Your task to perform on an android device: turn on translation in the chrome app Image 0: 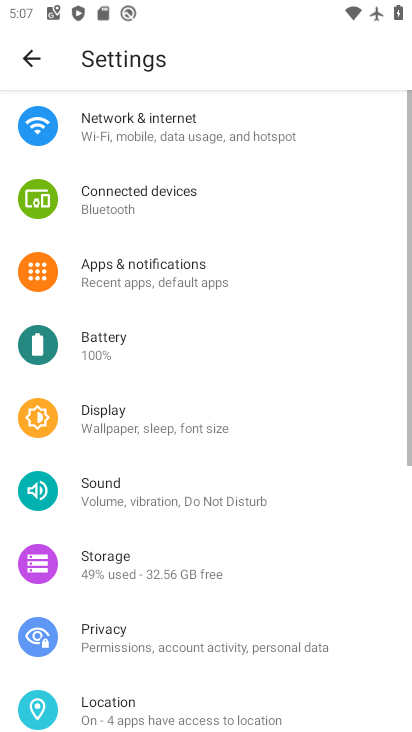
Step 0: press home button
Your task to perform on an android device: turn on translation in the chrome app Image 1: 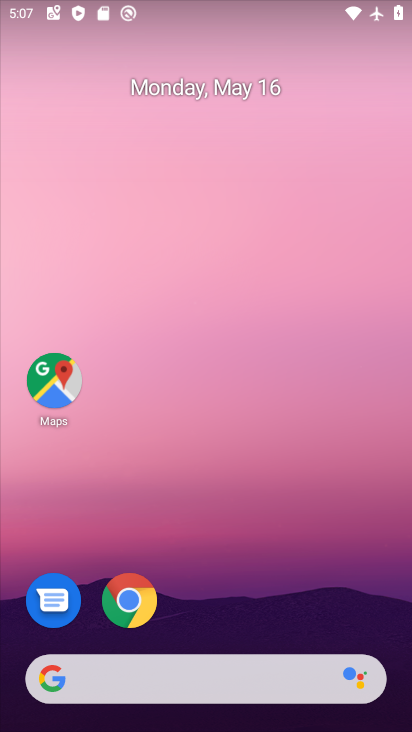
Step 1: drag from (252, 634) to (175, 30)
Your task to perform on an android device: turn on translation in the chrome app Image 2: 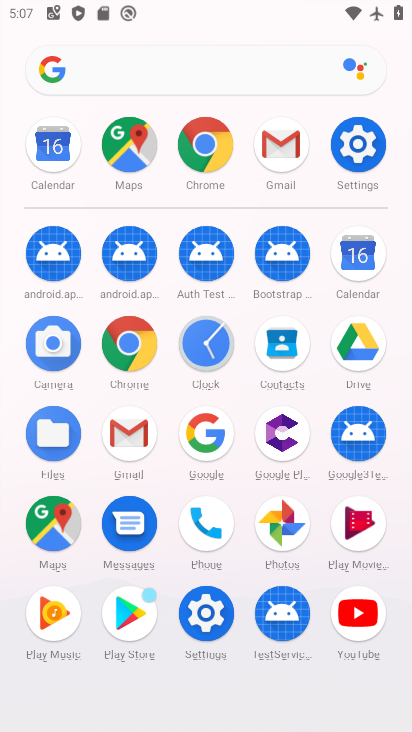
Step 2: click (145, 340)
Your task to perform on an android device: turn on translation in the chrome app Image 3: 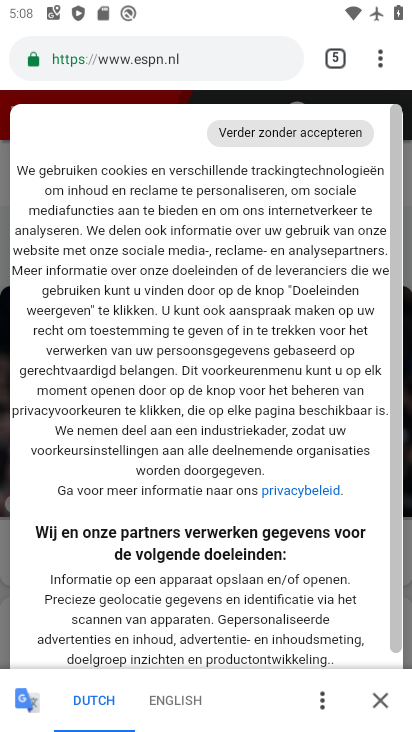
Step 3: click (386, 58)
Your task to perform on an android device: turn on translation in the chrome app Image 4: 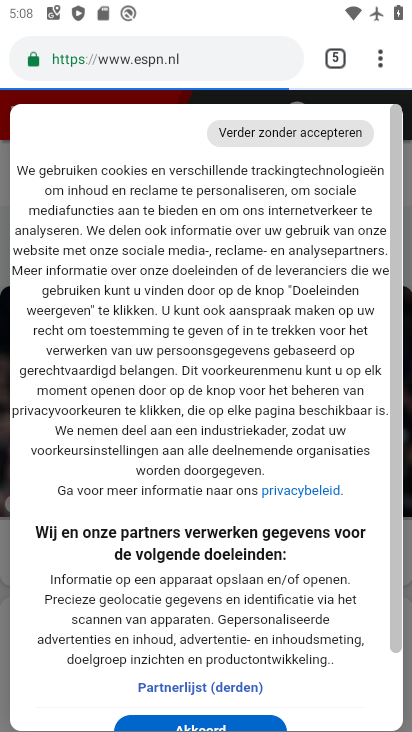
Step 4: click (381, 61)
Your task to perform on an android device: turn on translation in the chrome app Image 5: 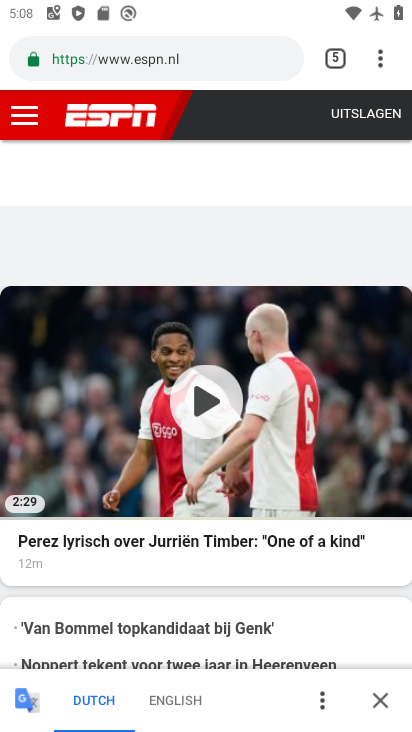
Step 5: click (378, 64)
Your task to perform on an android device: turn on translation in the chrome app Image 6: 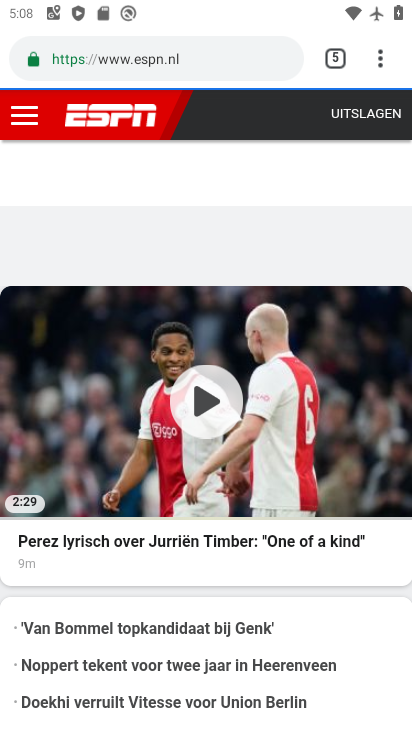
Step 6: drag from (379, 63) to (182, 623)
Your task to perform on an android device: turn on translation in the chrome app Image 7: 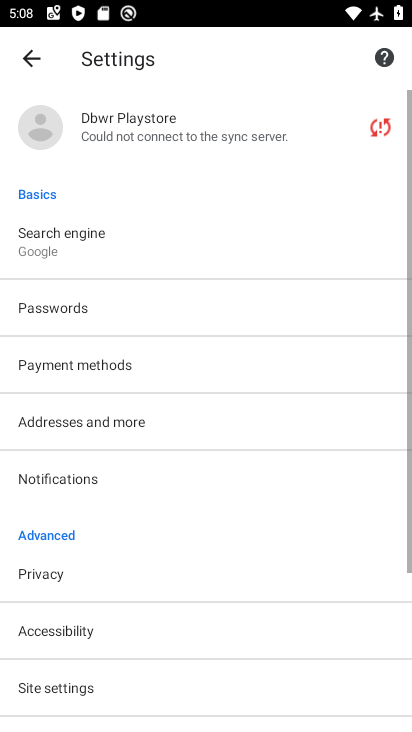
Step 7: drag from (202, 589) to (197, 148)
Your task to perform on an android device: turn on translation in the chrome app Image 8: 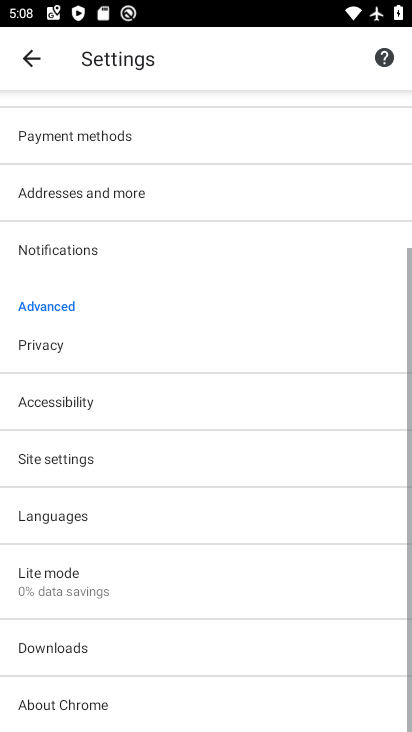
Step 8: click (41, 507)
Your task to perform on an android device: turn on translation in the chrome app Image 9: 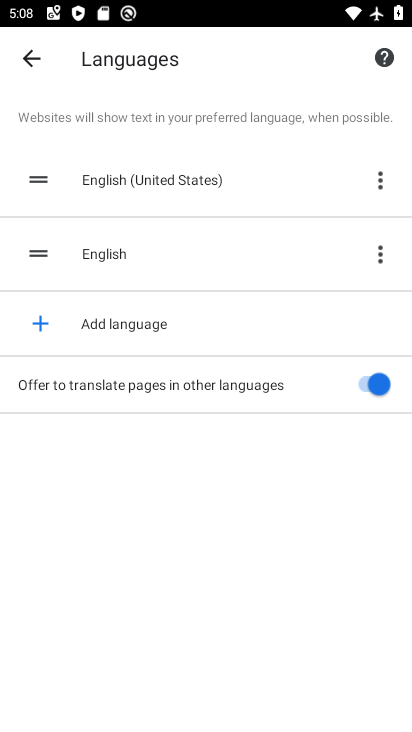
Step 9: task complete